Your task to perform on an android device: turn off javascript in the chrome app Image 0: 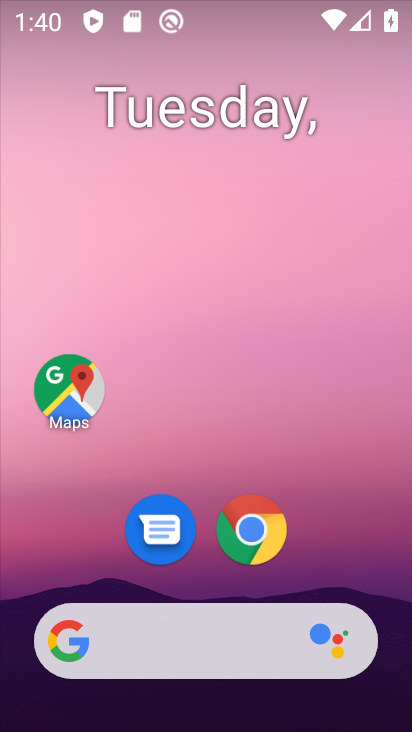
Step 0: drag from (403, 614) to (260, 27)
Your task to perform on an android device: turn off javascript in the chrome app Image 1: 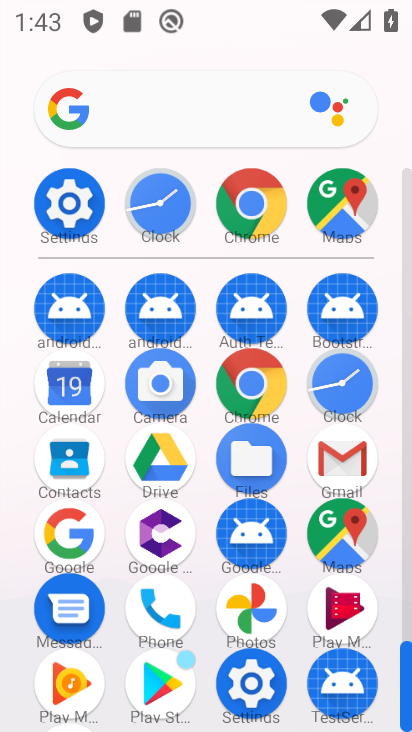
Step 1: click (252, 372)
Your task to perform on an android device: turn off javascript in the chrome app Image 2: 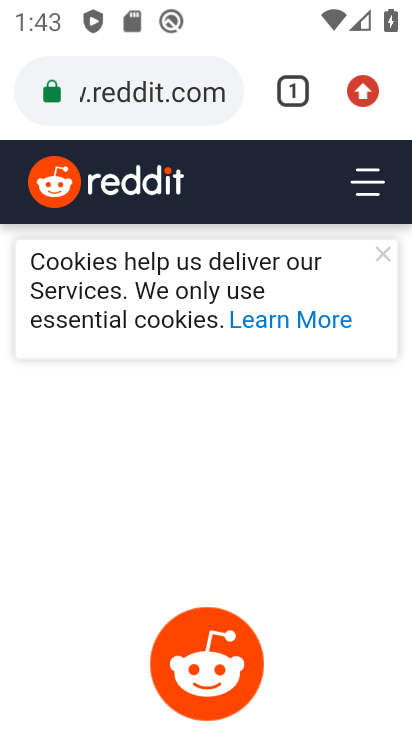
Step 2: press back button
Your task to perform on an android device: turn off javascript in the chrome app Image 3: 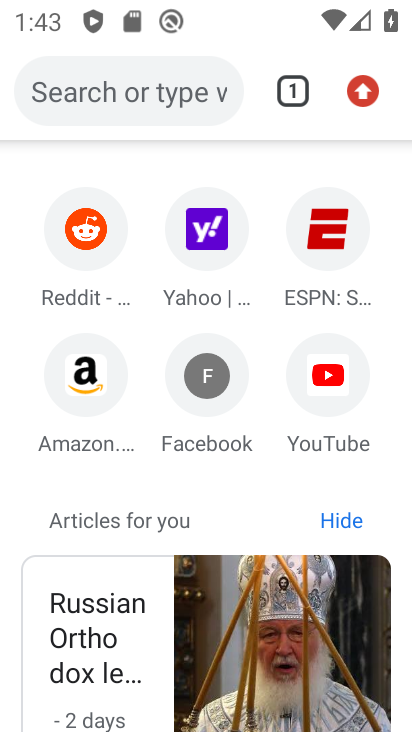
Step 3: click (358, 85)
Your task to perform on an android device: turn off javascript in the chrome app Image 4: 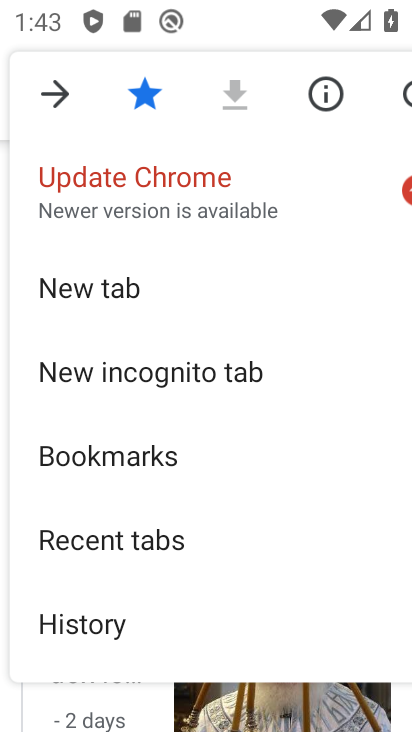
Step 4: drag from (168, 615) to (230, 179)
Your task to perform on an android device: turn off javascript in the chrome app Image 5: 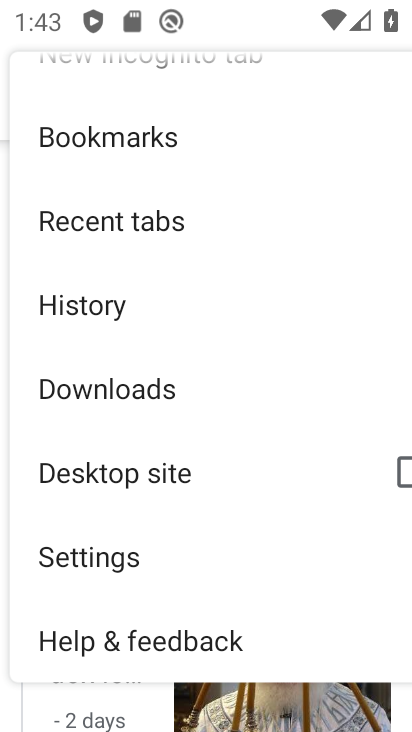
Step 5: click (124, 559)
Your task to perform on an android device: turn off javascript in the chrome app Image 6: 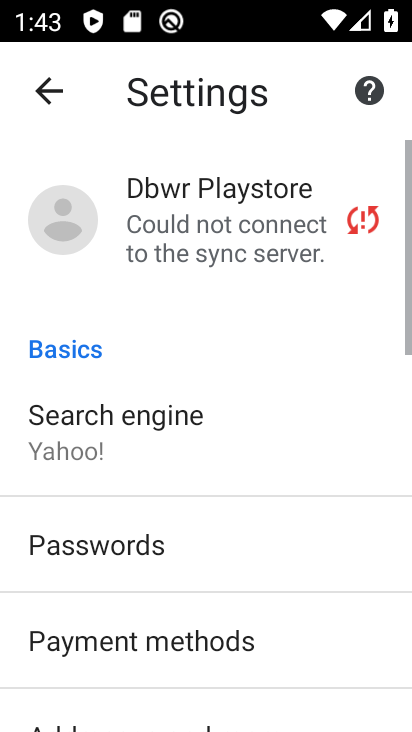
Step 6: drag from (124, 557) to (216, 58)
Your task to perform on an android device: turn off javascript in the chrome app Image 7: 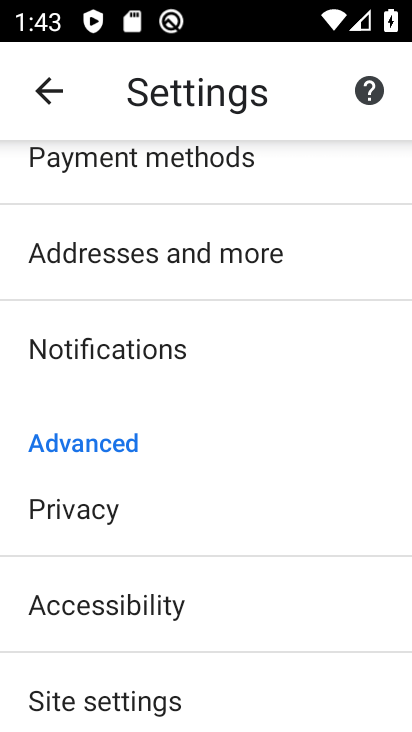
Step 7: click (174, 685)
Your task to perform on an android device: turn off javascript in the chrome app Image 8: 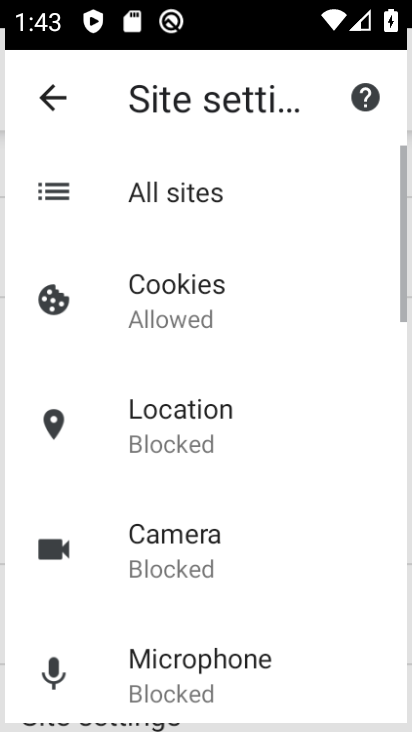
Step 8: drag from (174, 685) to (278, 203)
Your task to perform on an android device: turn off javascript in the chrome app Image 9: 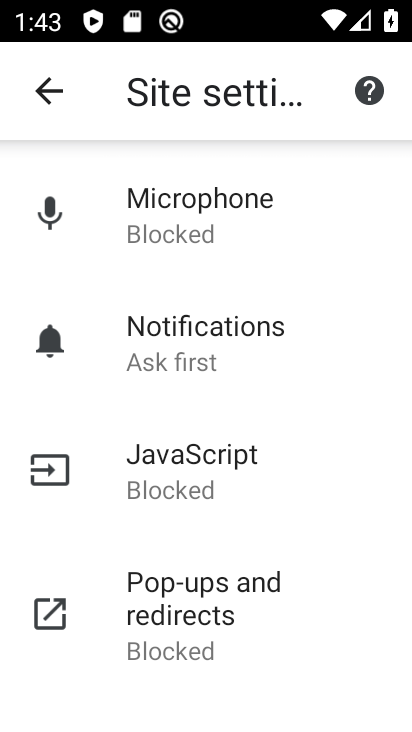
Step 9: click (193, 490)
Your task to perform on an android device: turn off javascript in the chrome app Image 10: 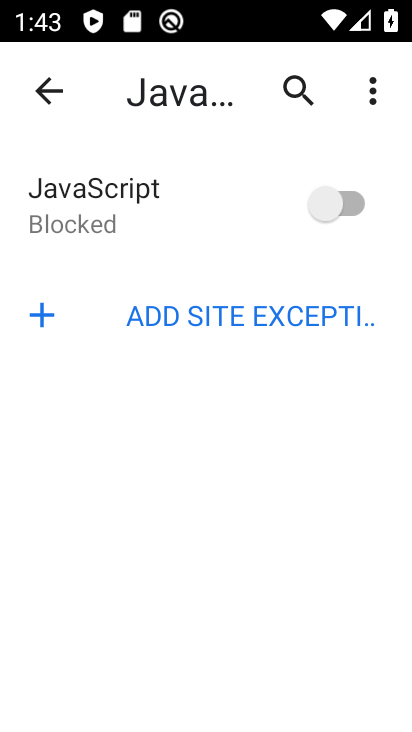
Step 10: click (327, 180)
Your task to perform on an android device: turn off javascript in the chrome app Image 11: 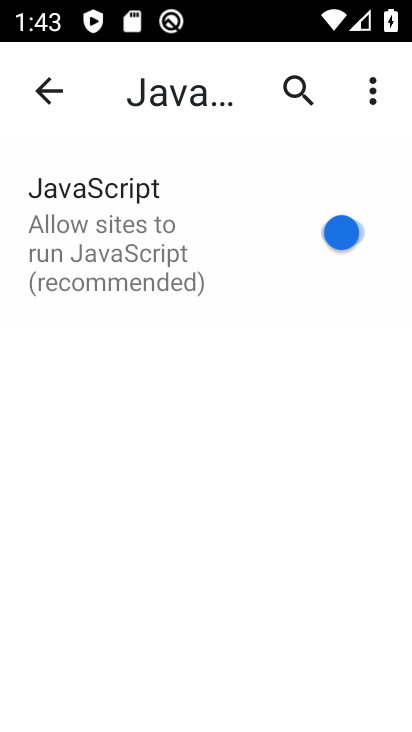
Step 11: click (327, 180)
Your task to perform on an android device: turn off javascript in the chrome app Image 12: 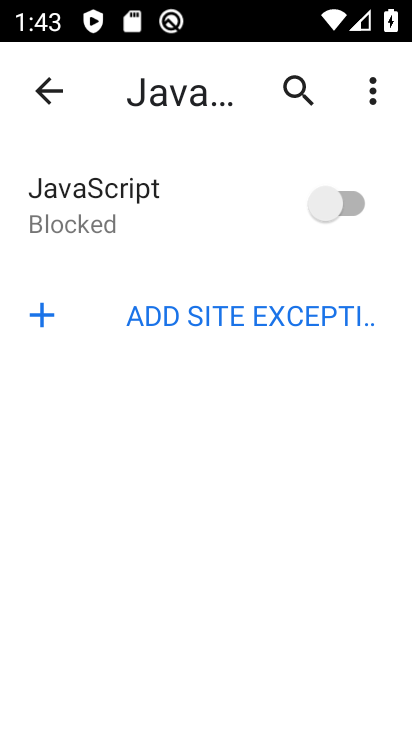
Step 12: task complete